Your task to perform on an android device: Open calendar and show me the third week of next month Image 0: 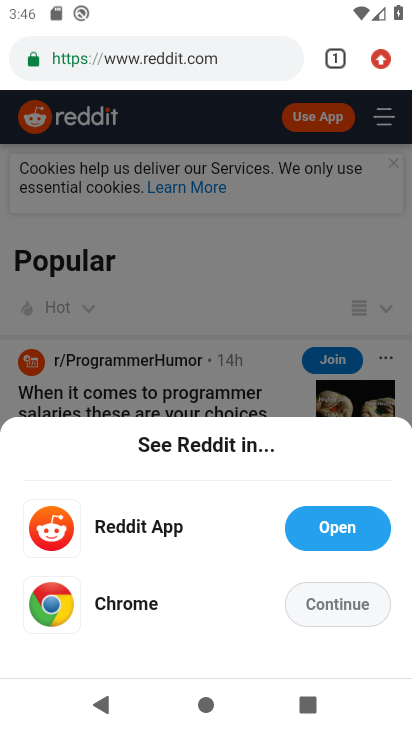
Step 0: press home button
Your task to perform on an android device: Open calendar and show me the third week of next month Image 1: 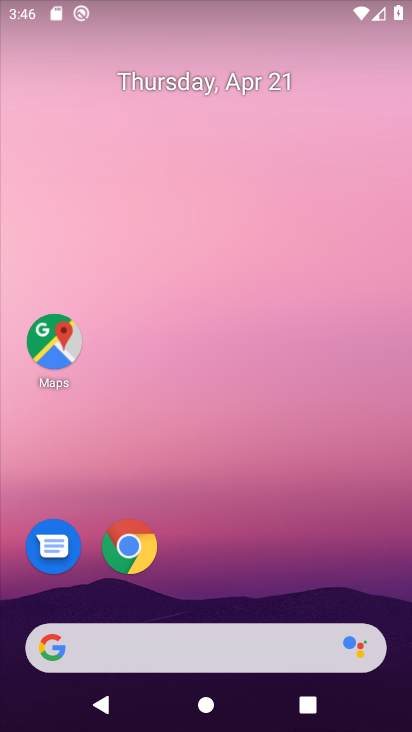
Step 1: click (178, 90)
Your task to perform on an android device: Open calendar and show me the third week of next month Image 2: 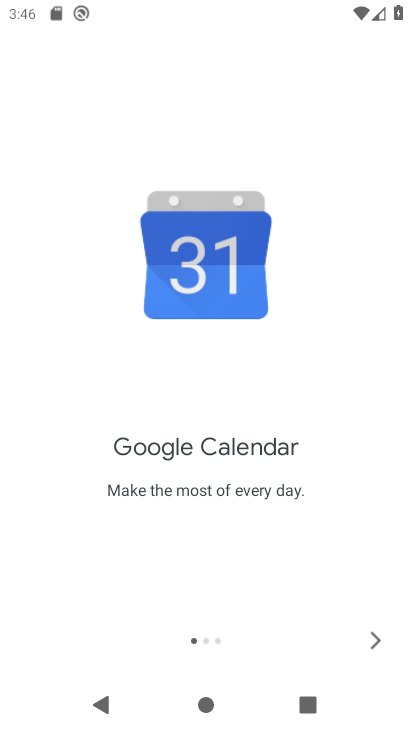
Step 2: click (378, 639)
Your task to perform on an android device: Open calendar and show me the third week of next month Image 3: 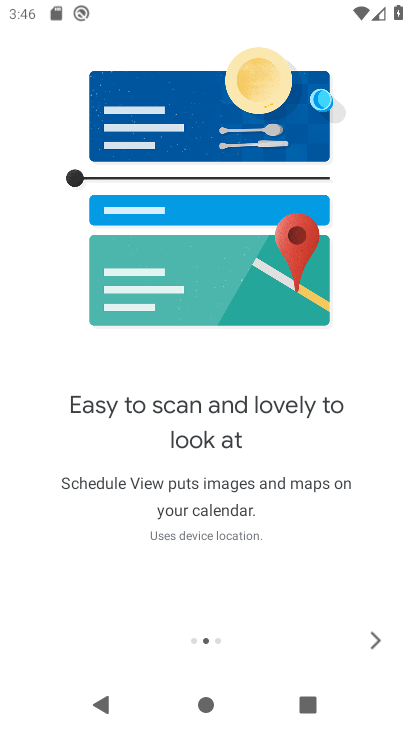
Step 3: click (378, 639)
Your task to perform on an android device: Open calendar and show me the third week of next month Image 4: 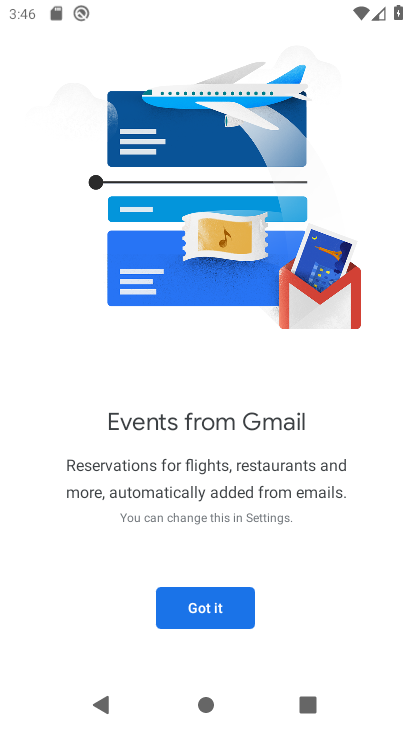
Step 4: click (192, 618)
Your task to perform on an android device: Open calendar and show me the third week of next month Image 5: 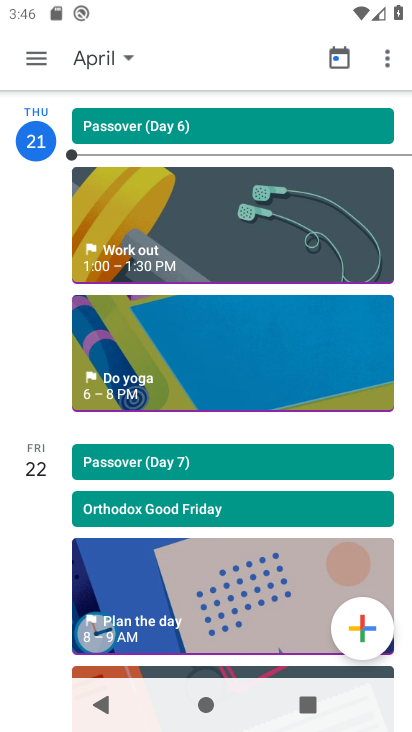
Step 5: click (43, 60)
Your task to perform on an android device: Open calendar and show me the third week of next month Image 6: 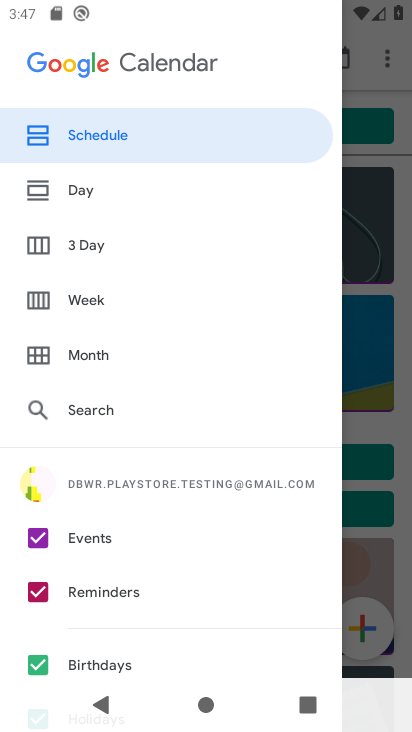
Step 6: click (395, 337)
Your task to perform on an android device: Open calendar and show me the third week of next month Image 7: 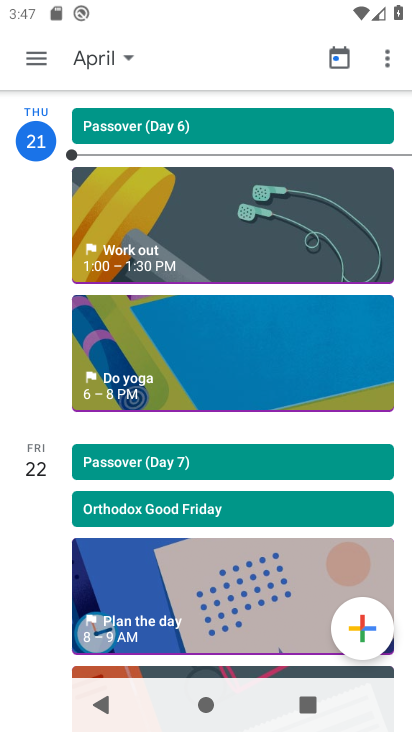
Step 7: click (107, 62)
Your task to perform on an android device: Open calendar and show me the third week of next month Image 8: 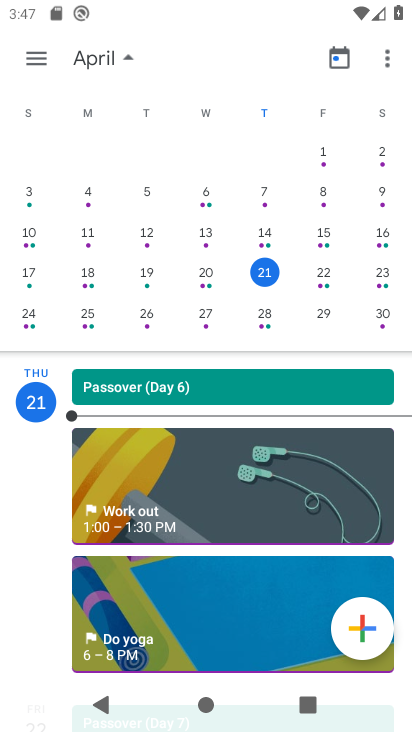
Step 8: drag from (377, 295) to (30, 265)
Your task to perform on an android device: Open calendar and show me the third week of next month Image 9: 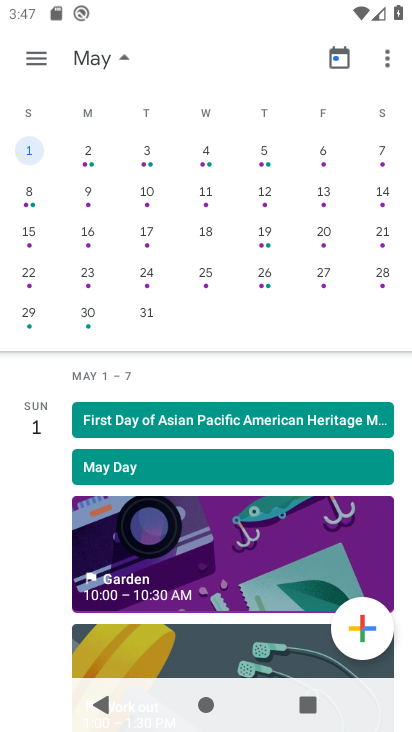
Step 9: click (211, 226)
Your task to perform on an android device: Open calendar and show me the third week of next month Image 10: 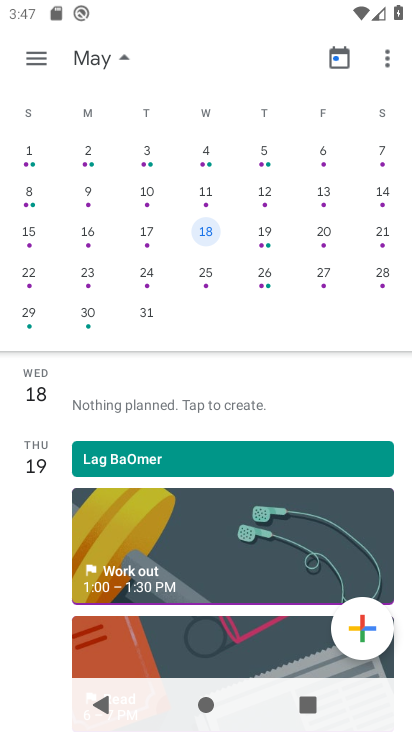
Step 10: task complete